Your task to perform on an android device: stop showing notifications on the lock screen Image 0: 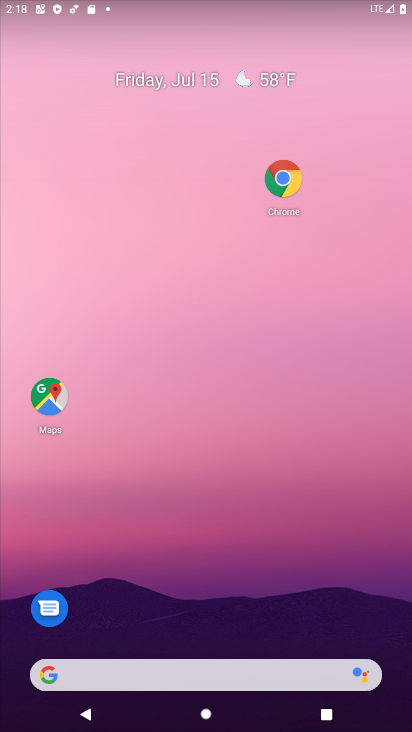
Step 0: drag from (205, 618) to (266, 3)
Your task to perform on an android device: stop showing notifications on the lock screen Image 1: 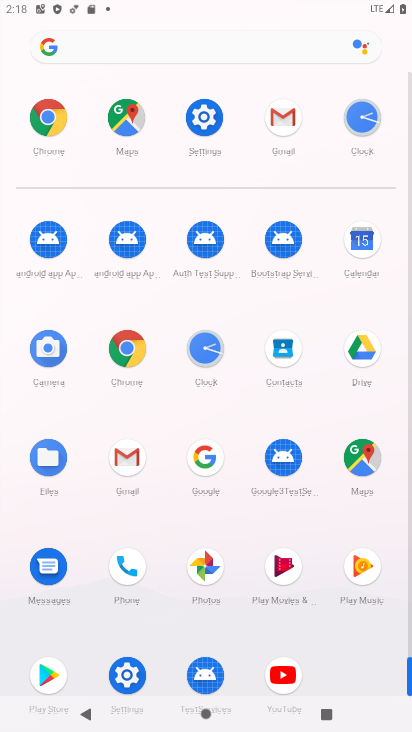
Step 1: click (132, 659)
Your task to perform on an android device: stop showing notifications on the lock screen Image 2: 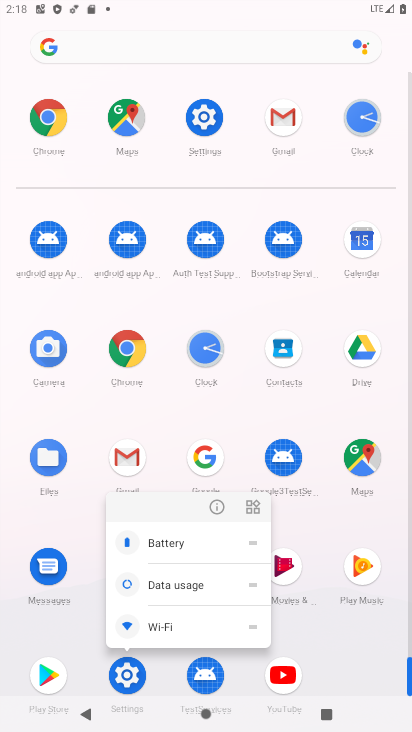
Step 2: click (131, 669)
Your task to perform on an android device: stop showing notifications on the lock screen Image 3: 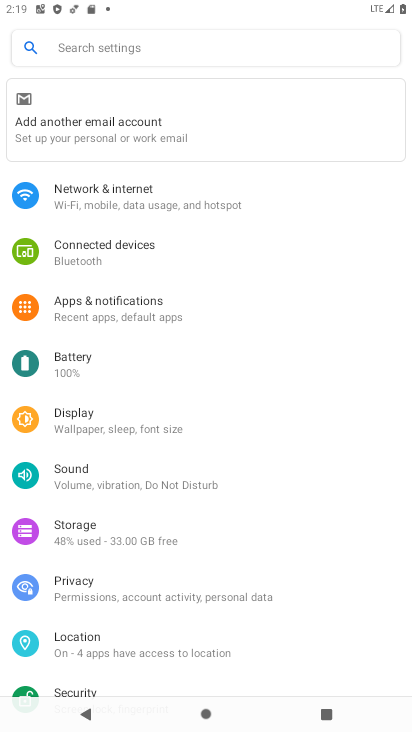
Step 3: click (151, 305)
Your task to perform on an android device: stop showing notifications on the lock screen Image 4: 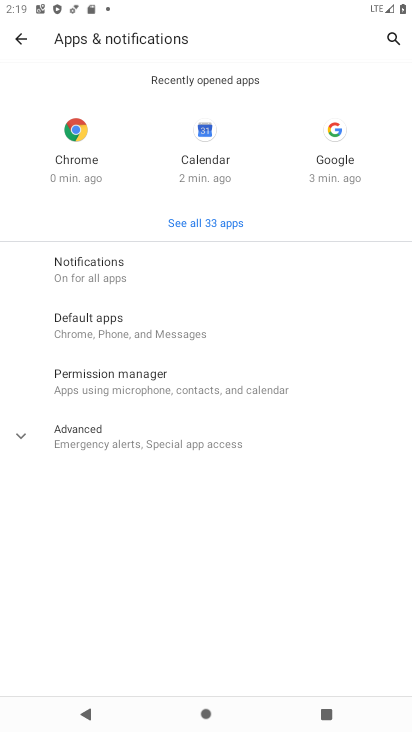
Step 4: click (85, 269)
Your task to perform on an android device: stop showing notifications on the lock screen Image 5: 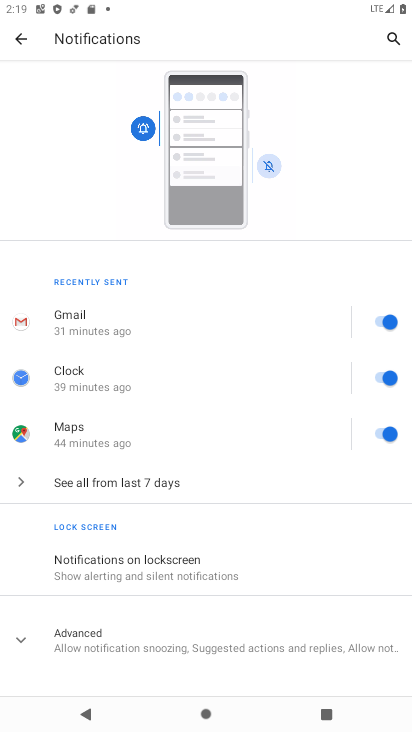
Step 5: click (135, 542)
Your task to perform on an android device: stop showing notifications on the lock screen Image 6: 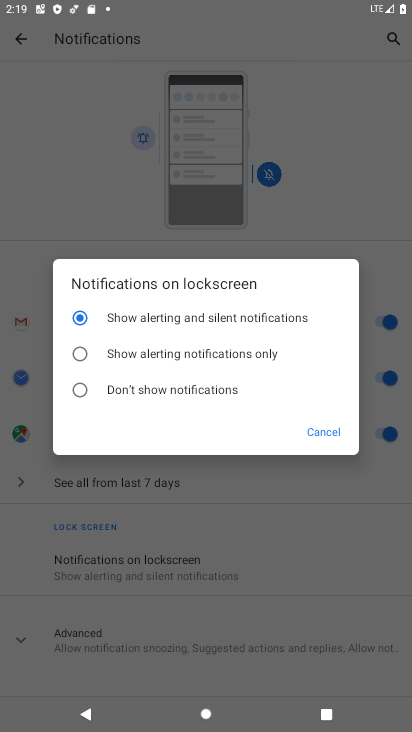
Step 6: click (196, 389)
Your task to perform on an android device: stop showing notifications on the lock screen Image 7: 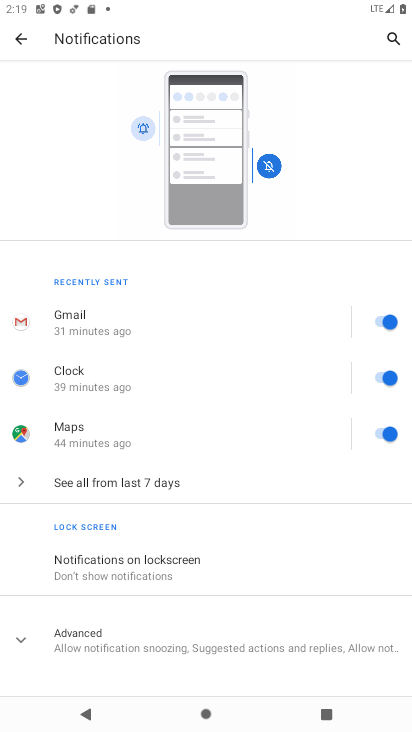
Step 7: task complete